Your task to perform on an android device: View the shopping cart on newegg.com. Search for lg ultragear on newegg.com, select the first entry, add it to the cart, then select checkout. Image 0: 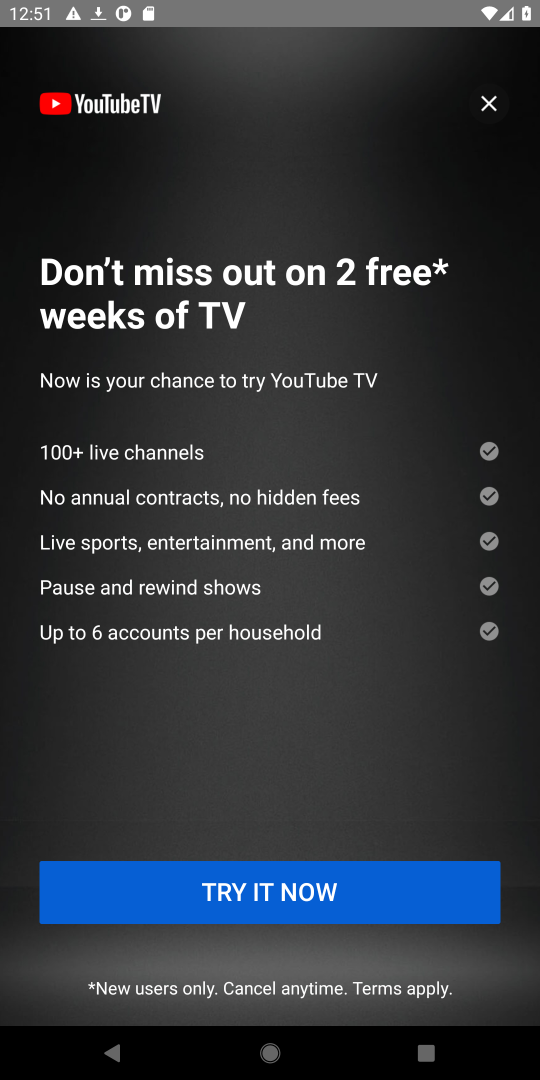
Step 0: task complete